Your task to perform on an android device: Search for Mexican restaurants on Maps Image 0: 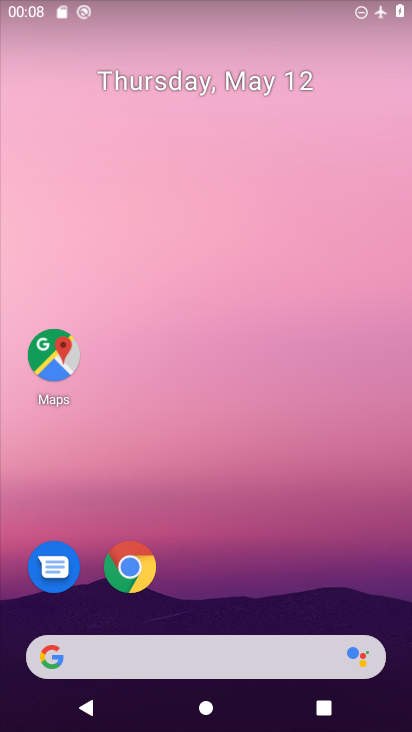
Step 0: click (61, 368)
Your task to perform on an android device: Search for Mexican restaurants on Maps Image 1: 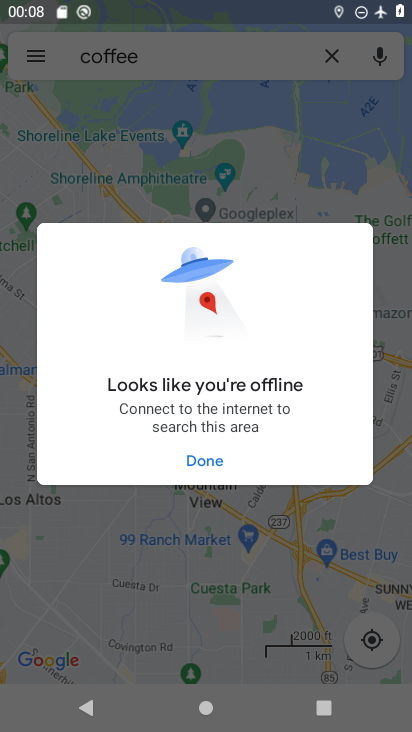
Step 1: task complete